Your task to perform on an android device: Toggle the flashlight Image 0: 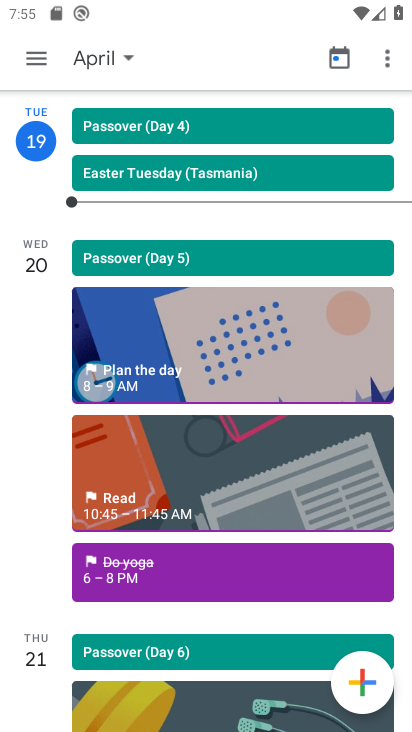
Step 0: press home button
Your task to perform on an android device: Toggle the flashlight Image 1: 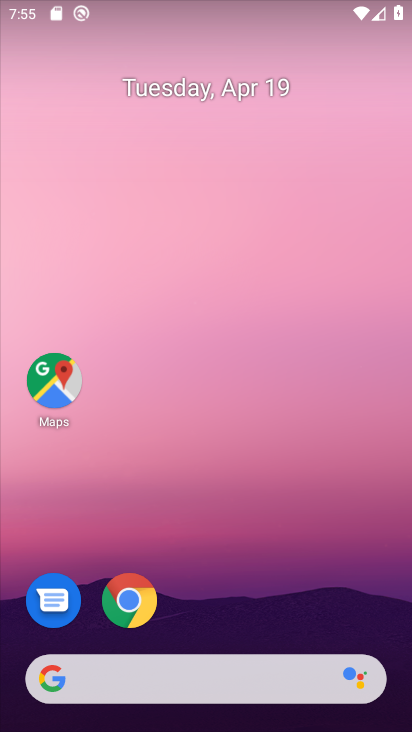
Step 1: drag from (239, 4) to (236, 372)
Your task to perform on an android device: Toggle the flashlight Image 2: 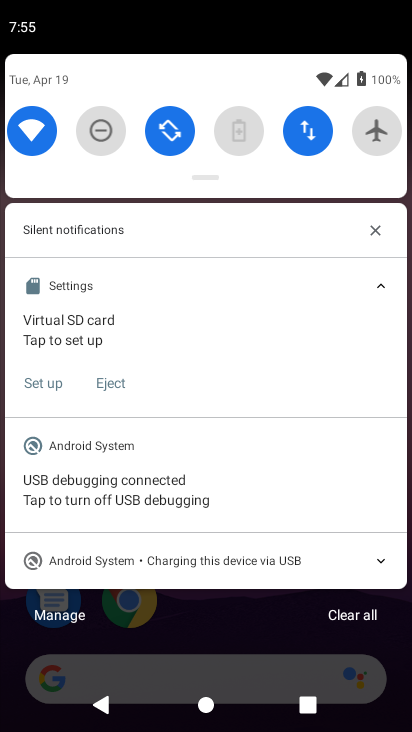
Step 2: drag from (205, 92) to (233, 418)
Your task to perform on an android device: Toggle the flashlight Image 3: 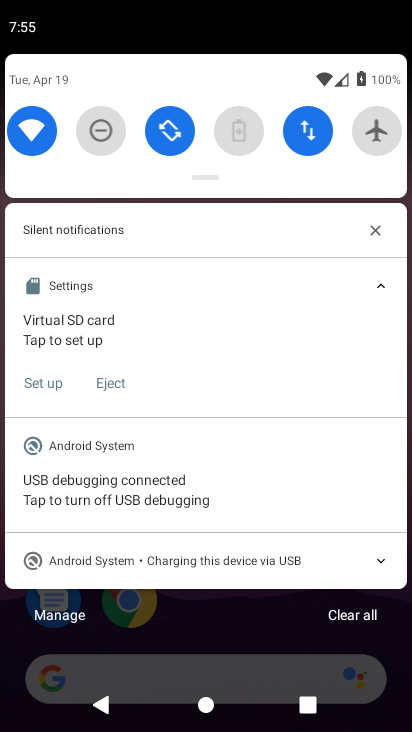
Step 3: drag from (198, 201) to (197, 416)
Your task to perform on an android device: Toggle the flashlight Image 4: 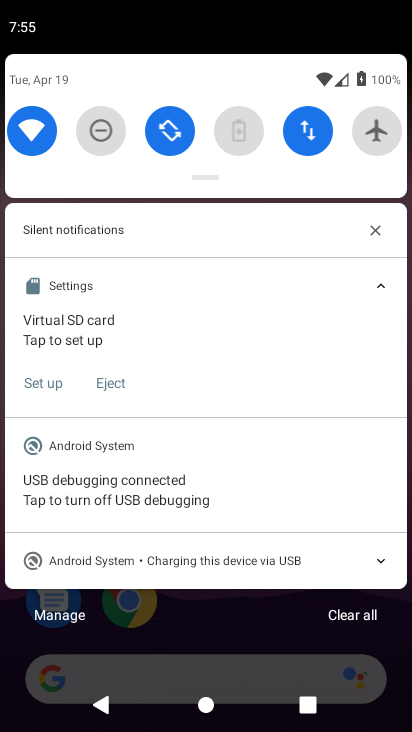
Step 4: drag from (204, 91) to (210, 443)
Your task to perform on an android device: Toggle the flashlight Image 5: 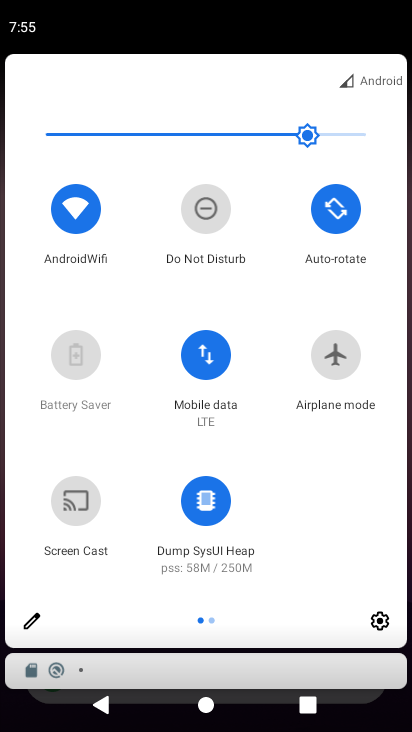
Step 5: click (39, 619)
Your task to perform on an android device: Toggle the flashlight Image 6: 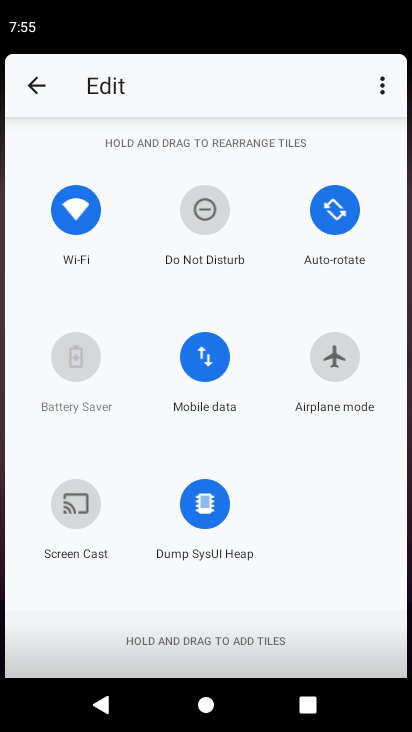
Step 6: task complete